Your task to perform on an android device: change text size in settings app Image 0: 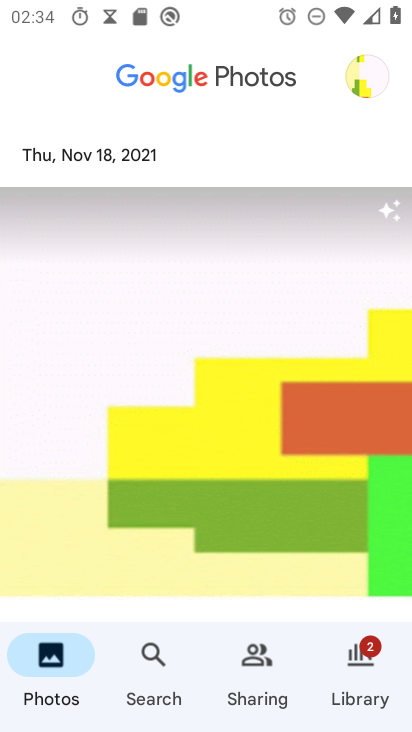
Step 0: press home button
Your task to perform on an android device: change text size in settings app Image 1: 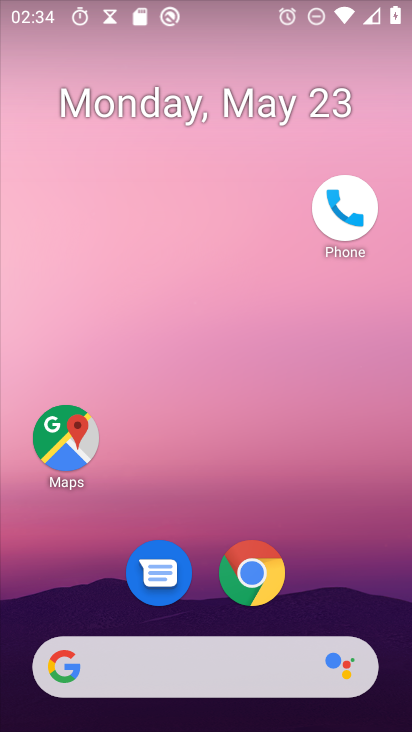
Step 1: drag from (115, 669) to (276, 177)
Your task to perform on an android device: change text size in settings app Image 2: 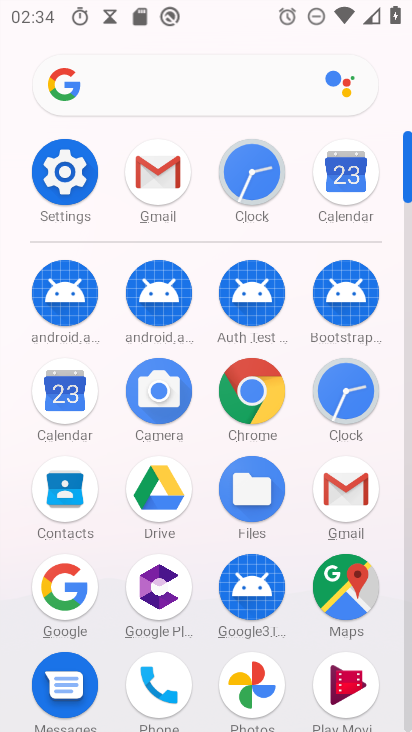
Step 2: click (73, 182)
Your task to perform on an android device: change text size in settings app Image 3: 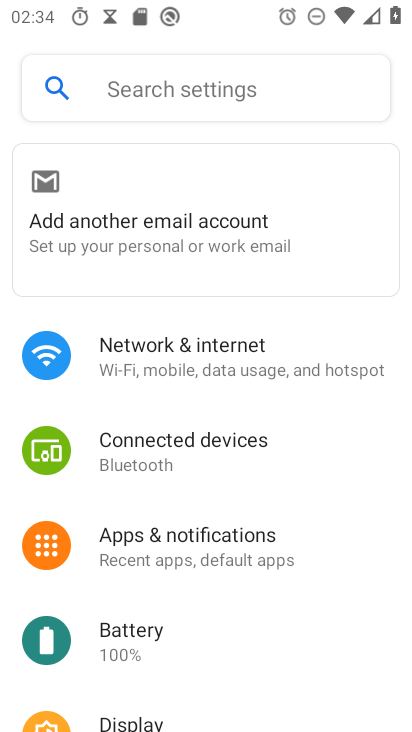
Step 3: drag from (189, 632) to (309, 282)
Your task to perform on an android device: change text size in settings app Image 4: 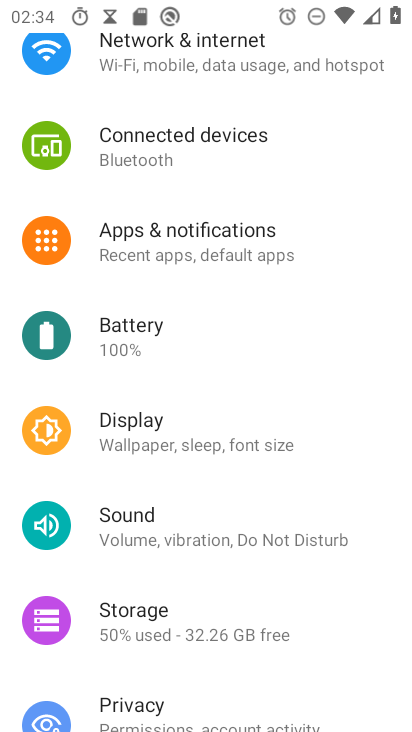
Step 4: drag from (175, 602) to (334, 218)
Your task to perform on an android device: change text size in settings app Image 5: 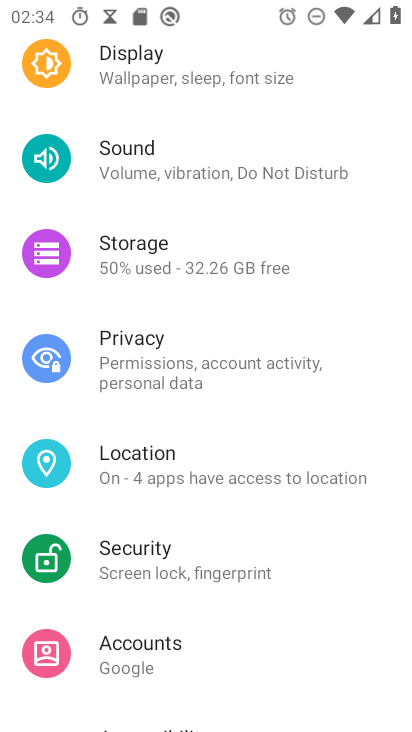
Step 5: click (249, 78)
Your task to perform on an android device: change text size in settings app Image 6: 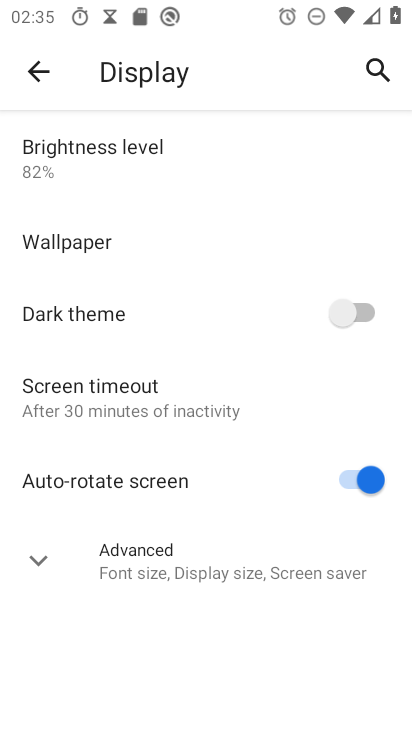
Step 6: click (106, 543)
Your task to perform on an android device: change text size in settings app Image 7: 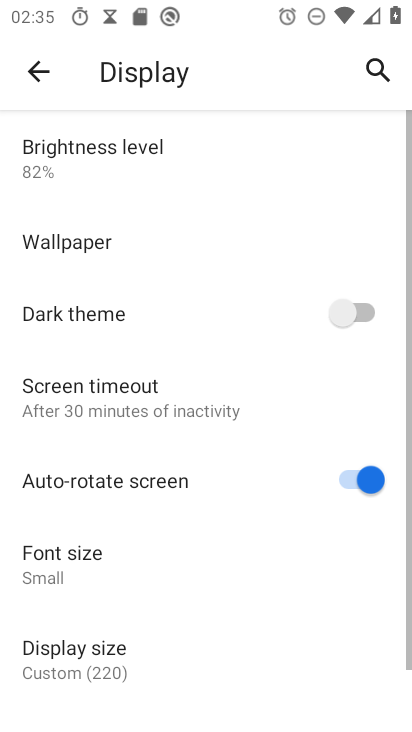
Step 7: click (61, 581)
Your task to perform on an android device: change text size in settings app Image 8: 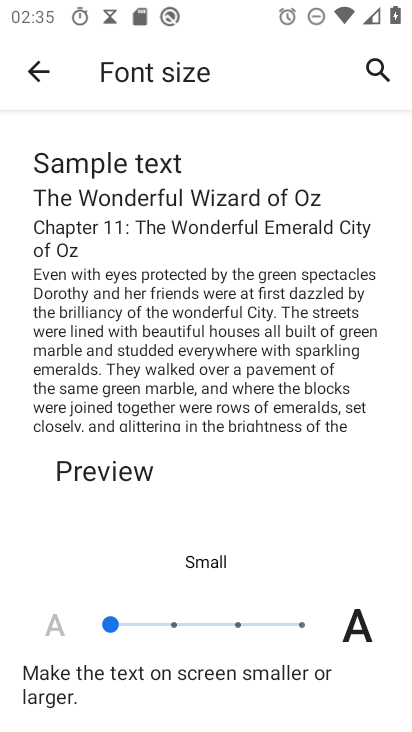
Step 8: click (173, 627)
Your task to perform on an android device: change text size in settings app Image 9: 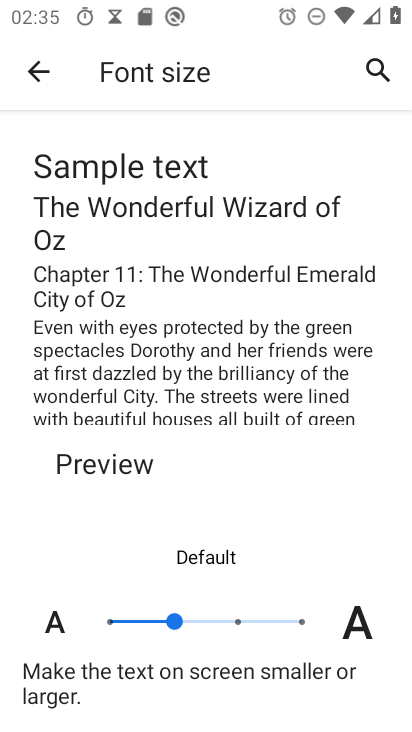
Step 9: task complete